Your task to perform on an android device: Open eBay Image 0: 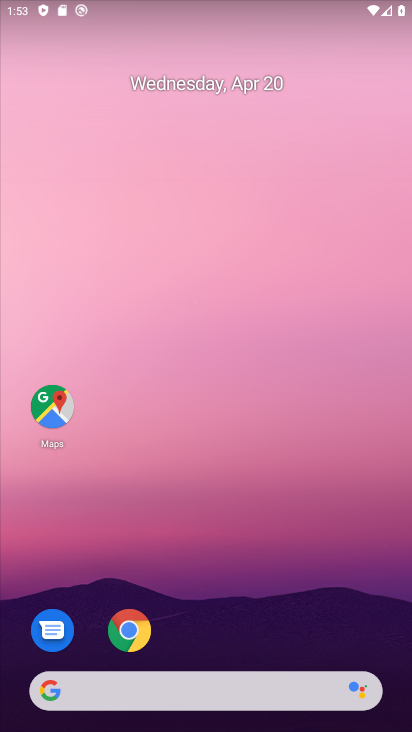
Step 0: drag from (342, 553) to (270, 109)
Your task to perform on an android device: Open eBay Image 1: 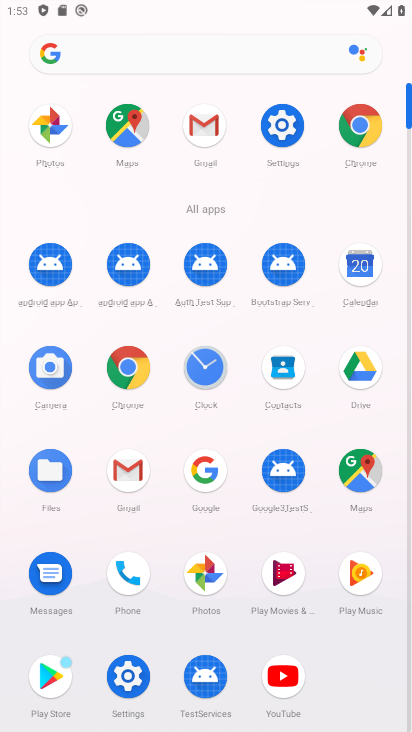
Step 1: click (366, 139)
Your task to perform on an android device: Open eBay Image 2: 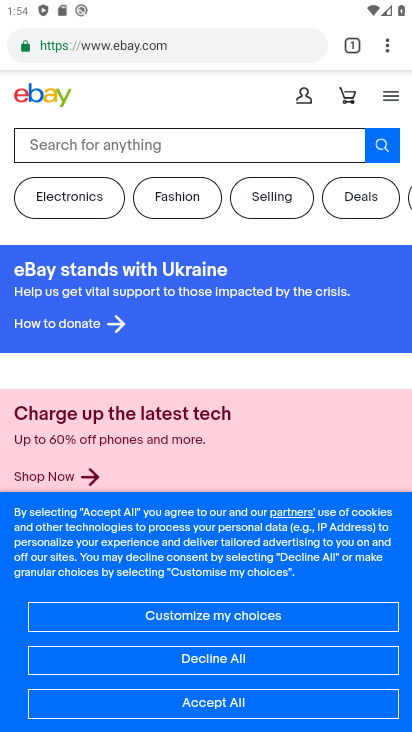
Step 2: task complete